Your task to perform on an android device: toggle improve location accuracy Image 0: 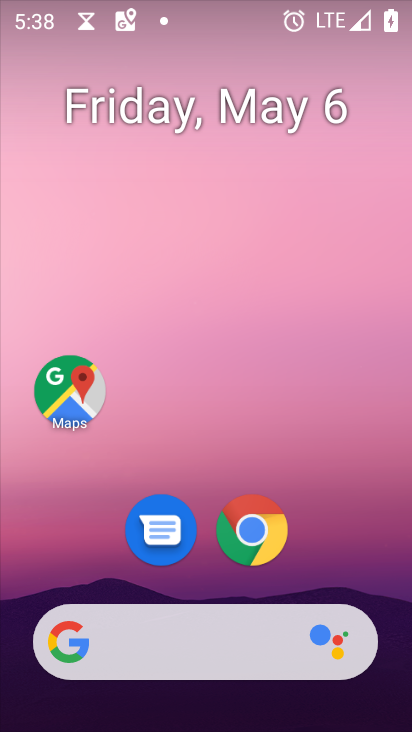
Step 0: drag from (309, 368) to (188, 26)
Your task to perform on an android device: toggle improve location accuracy Image 1: 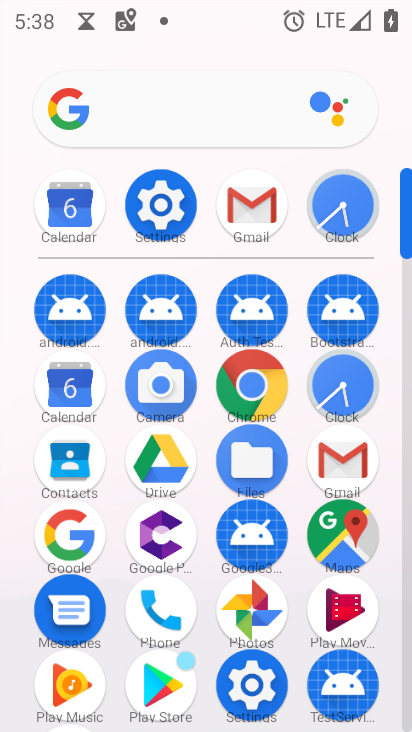
Step 1: click (172, 188)
Your task to perform on an android device: toggle improve location accuracy Image 2: 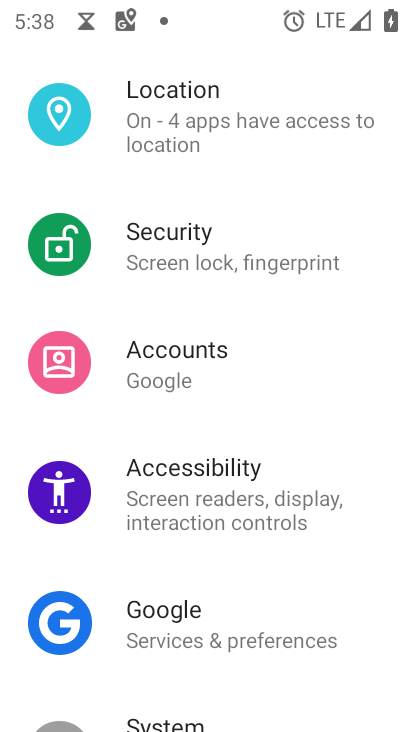
Step 2: click (194, 133)
Your task to perform on an android device: toggle improve location accuracy Image 3: 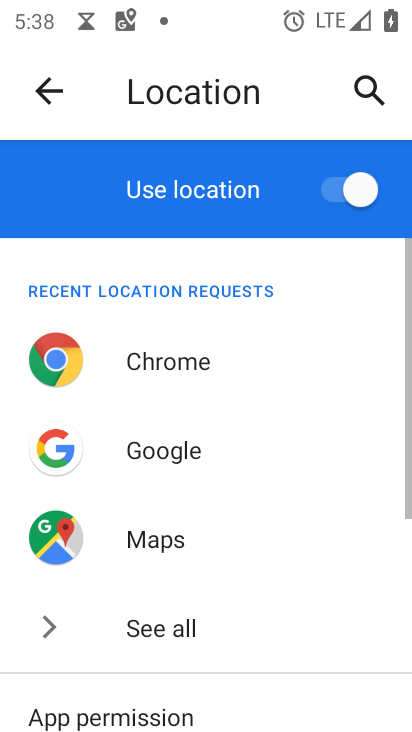
Step 3: drag from (250, 668) to (260, 161)
Your task to perform on an android device: toggle improve location accuracy Image 4: 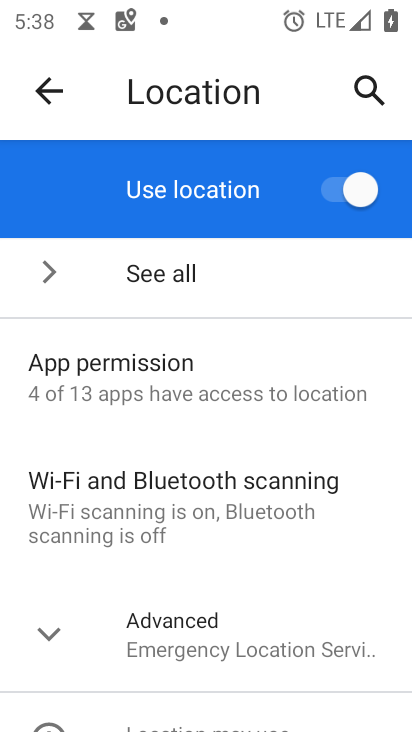
Step 4: click (226, 628)
Your task to perform on an android device: toggle improve location accuracy Image 5: 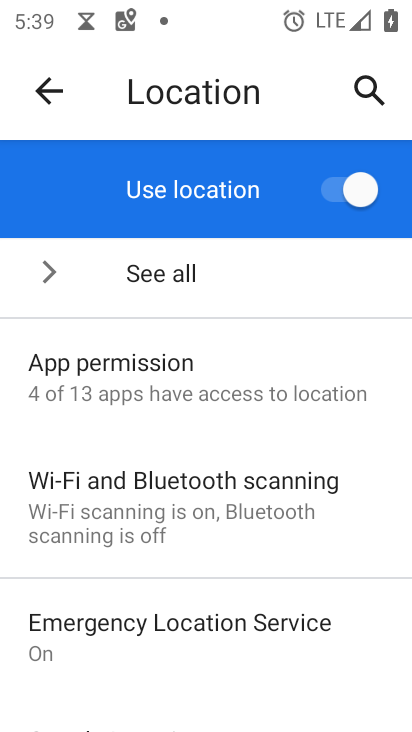
Step 5: drag from (228, 638) to (247, 313)
Your task to perform on an android device: toggle improve location accuracy Image 6: 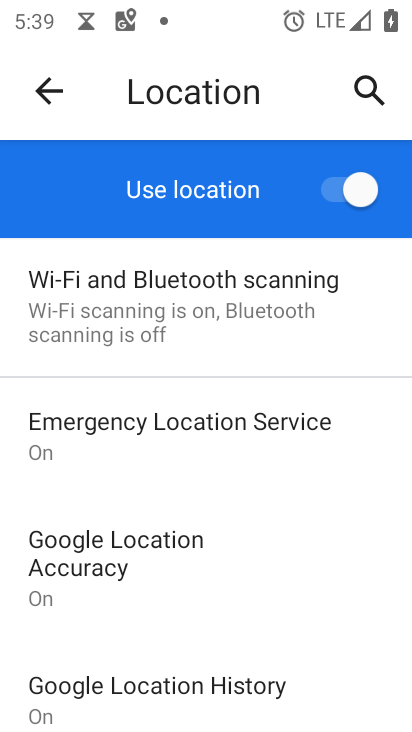
Step 6: click (154, 563)
Your task to perform on an android device: toggle improve location accuracy Image 7: 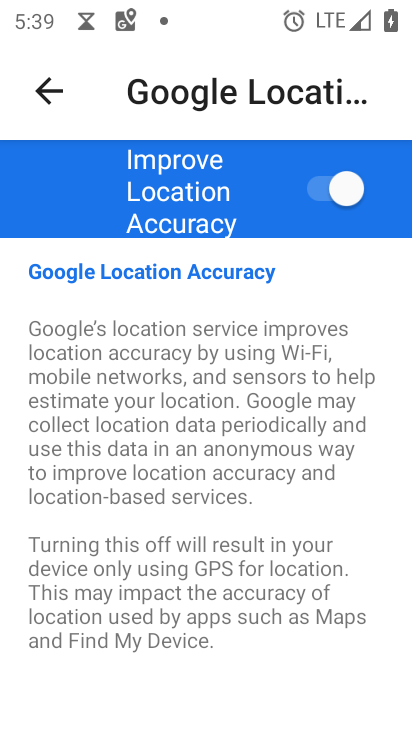
Step 7: click (342, 195)
Your task to perform on an android device: toggle improve location accuracy Image 8: 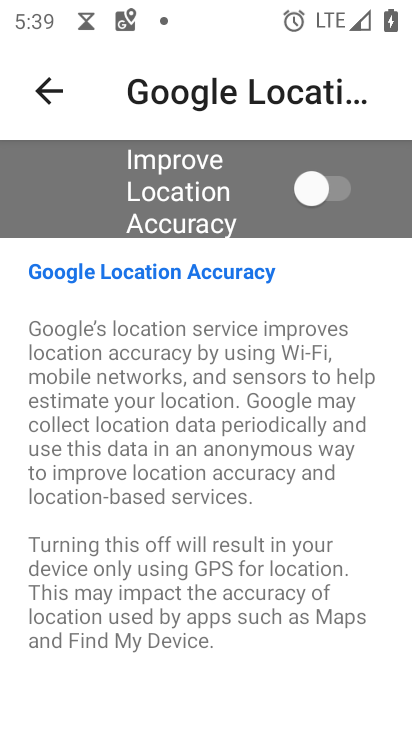
Step 8: task complete